Your task to perform on an android device: set the stopwatch Image 0: 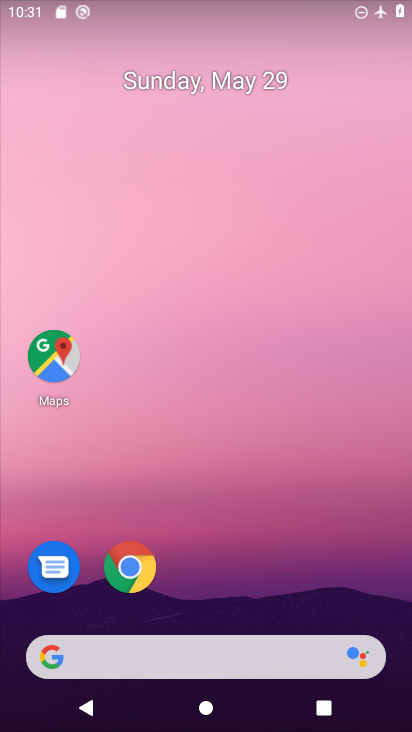
Step 0: drag from (369, 598) to (236, 11)
Your task to perform on an android device: set the stopwatch Image 1: 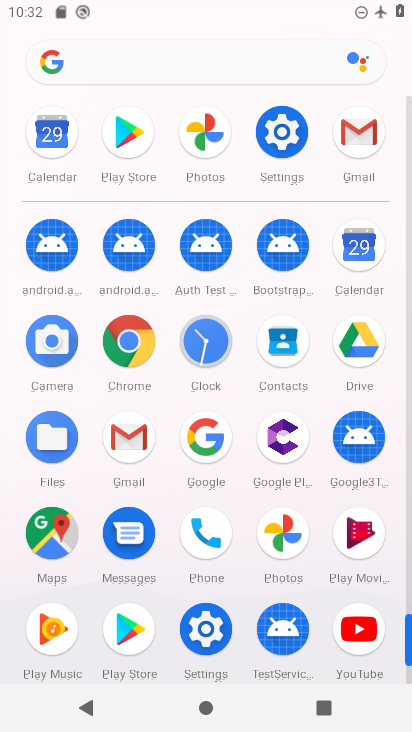
Step 1: click (204, 340)
Your task to perform on an android device: set the stopwatch Image 2: 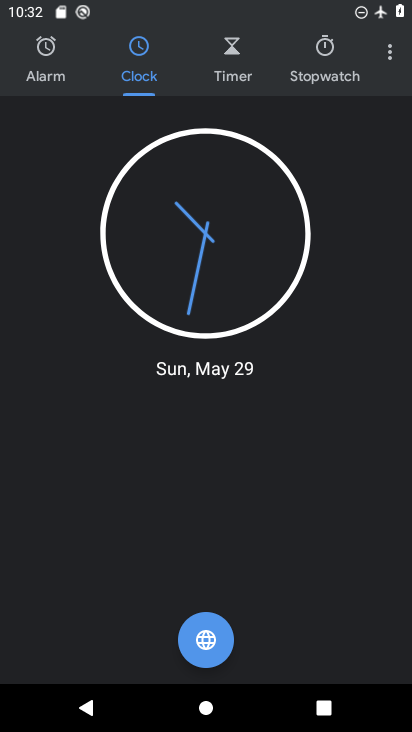
Step 2: click (330, 67)
Your task to perform on an android device: set the stopwatch Image 3: 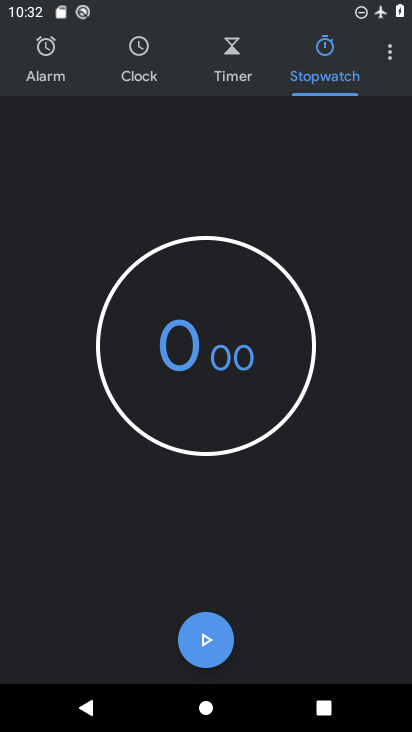
Step 3: task complete